Your task to perform on an android device: turn on location history Image 0: 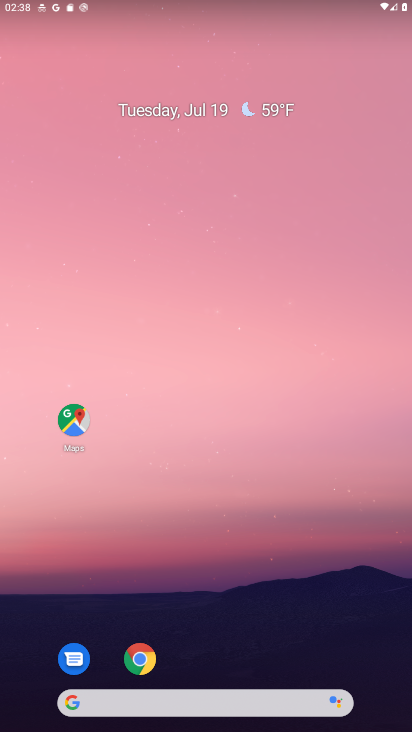
Step 0: drag from (210, 528) to (210, 135)
Your task to perform on an android device: turn on location history Image 1: 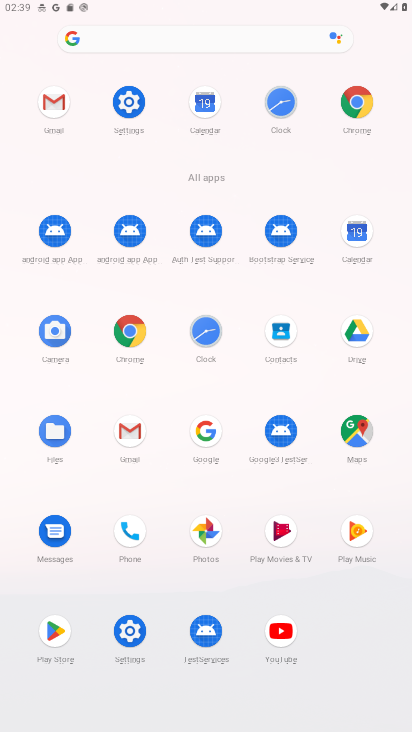
Step 1: click (128, 637)
Your task to perform on an android device: turn on location history Image 2: 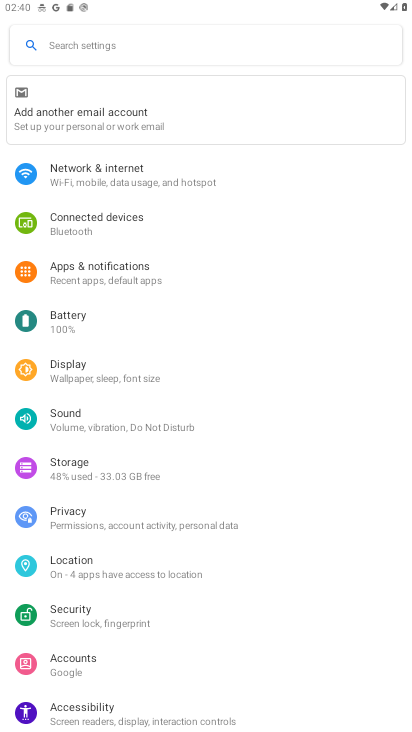
Step 2: click (95, 567)
Your task to perform on an android device: turn on location history Image 3: 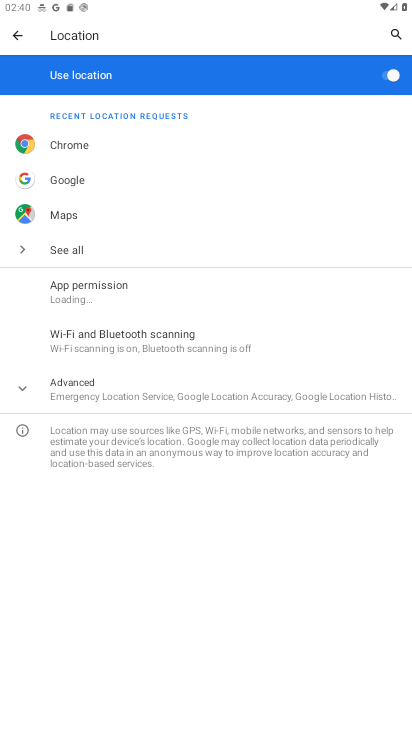
Step 3: click (79, 390)
Your task to perform on an android device: turn on location history Image 4: 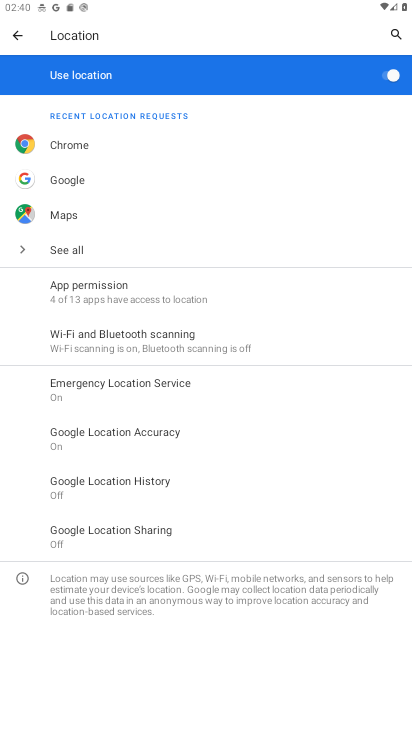
Step 4: click (130, 482)
Your task to perform on an android device: turn on location history Image 5: 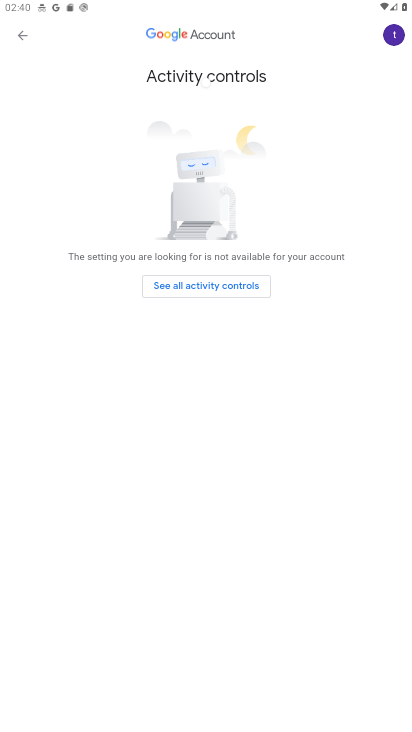
Step 5: click (218, 279)
Your task to perform on an android device: turn on location history Image 6: 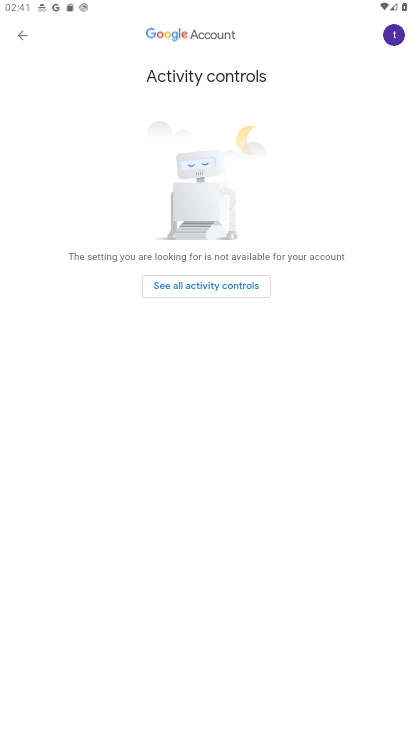
Step 6: click (202, 286)
Your task to perform on an android device: turn on location history Image 7: 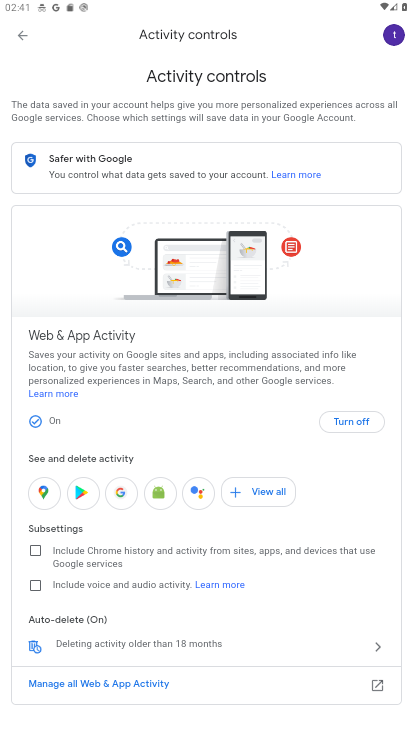
Step 7: task complete